Your task to perform on an android device: Go to Amazon Image 0: 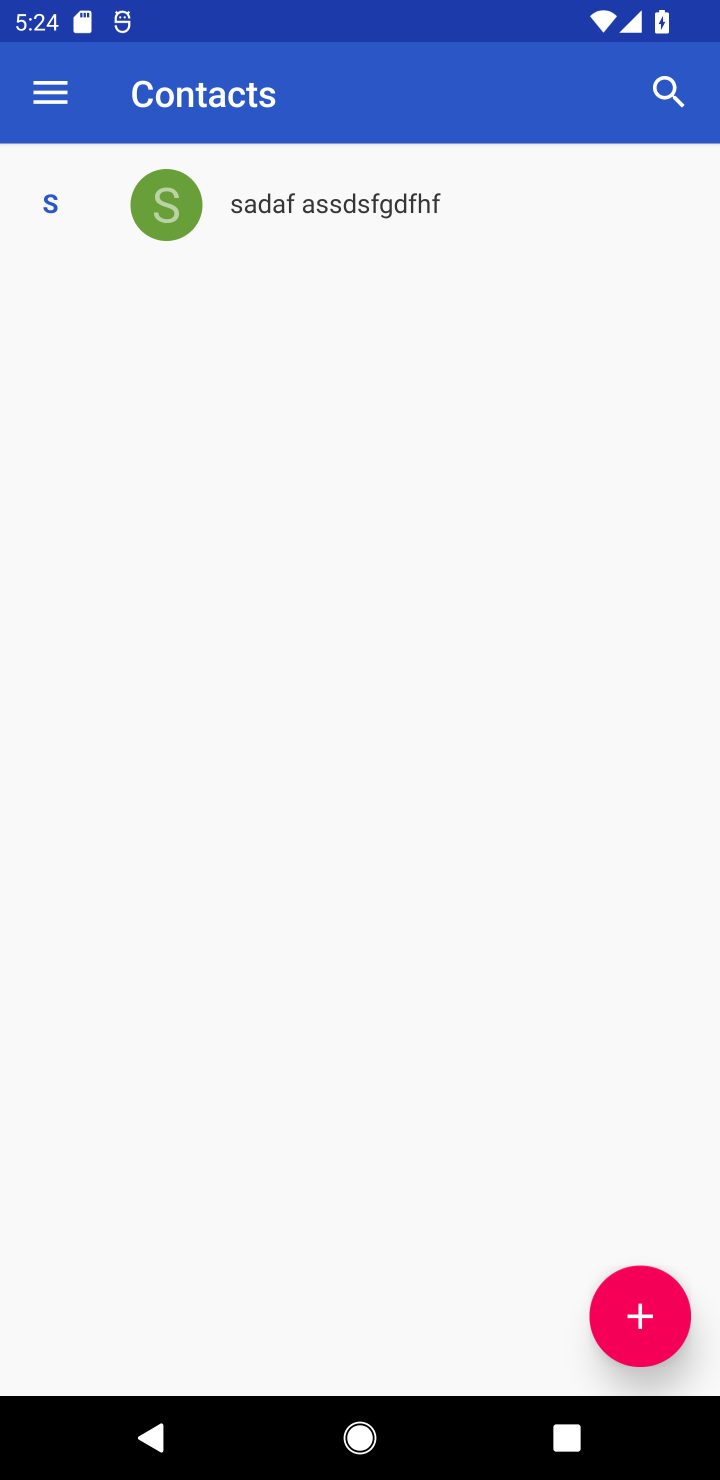
Step 0: task complete